Your task to perform on an android device: See recent photos Image 0: 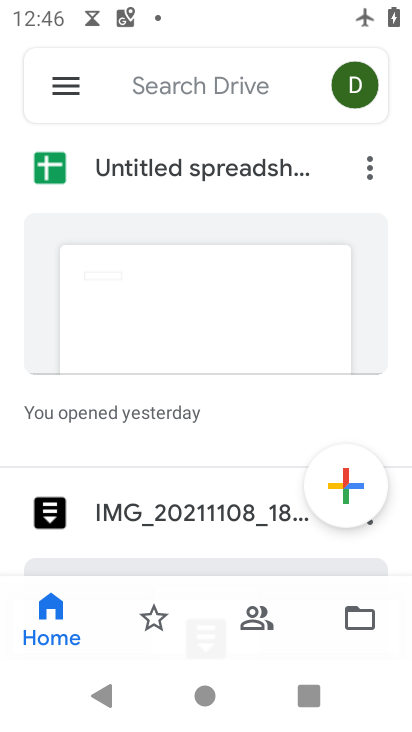
Step 0: press home button
Your task to perform on an android device: See recent photos Image 1: 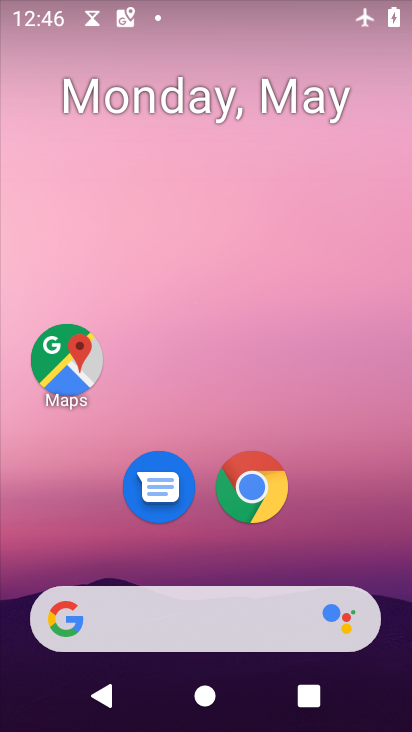
Step 1: drag from (312, 506) to (211, 25)
Your task to perform on an android device: See recent photos Image 2: 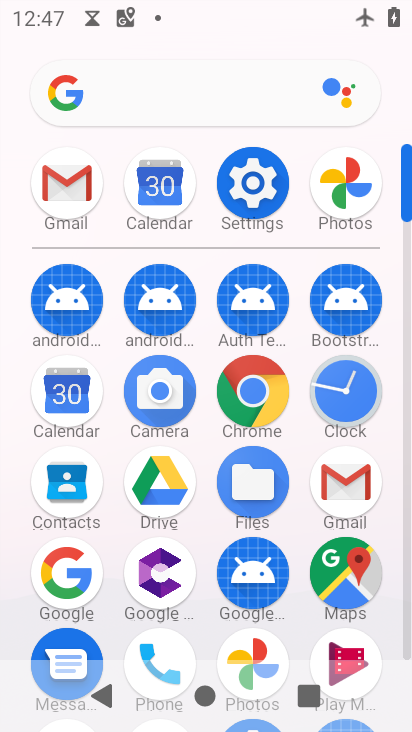
Step 2: click (253, 649)
Your task to perform on an android device: See recent photos Image 3: 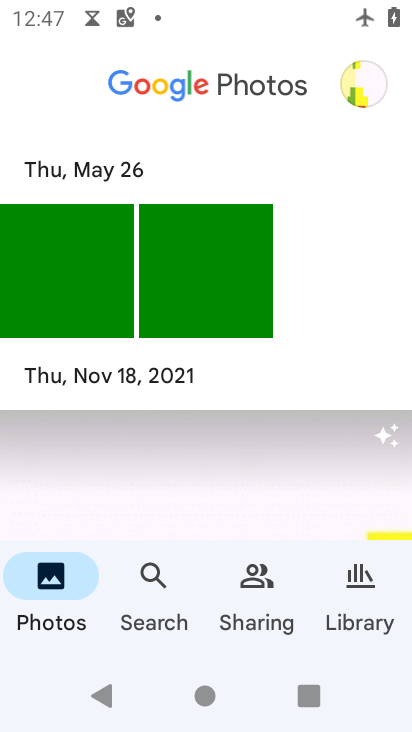
Step 3: task complete